Your task to perform on an android device: Open calendar and show me the second week of next month Image 0: 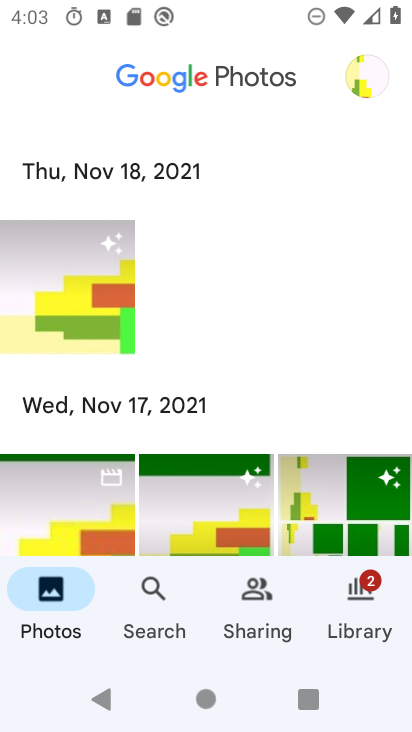
Step 0: press home button
Your task to perform on an android device: Open calendar and show me the second week of next month Image 1: 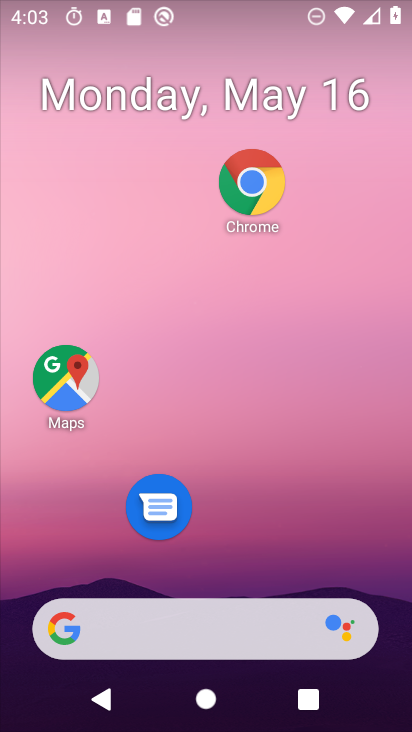
Step 1: drag from (269, 558) to (245, 60)
Your task to perform on an android device: Open calendar and show me the second week of next month Image 2: 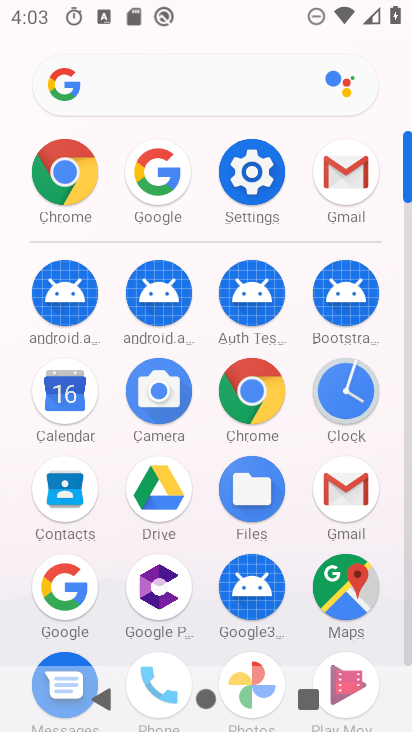
Step 2: click (83, 419)
Your task to perform on an android device: Open calendar and show me the second week of next month Image 3: 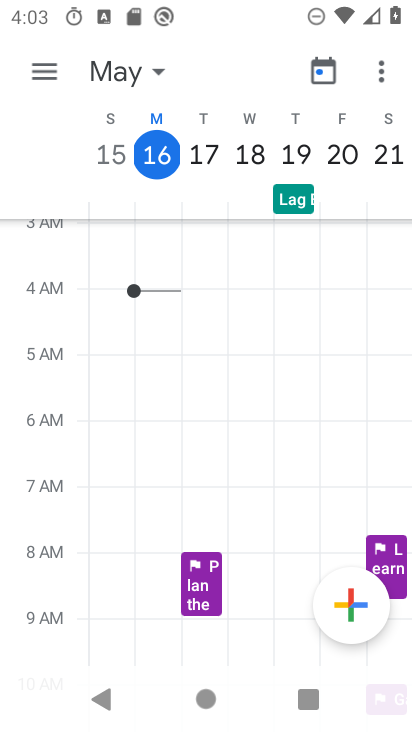
Step 3: click (156, 84)
Your task to perform on an android device: Open calendar and show me the second week of next month Image 4: 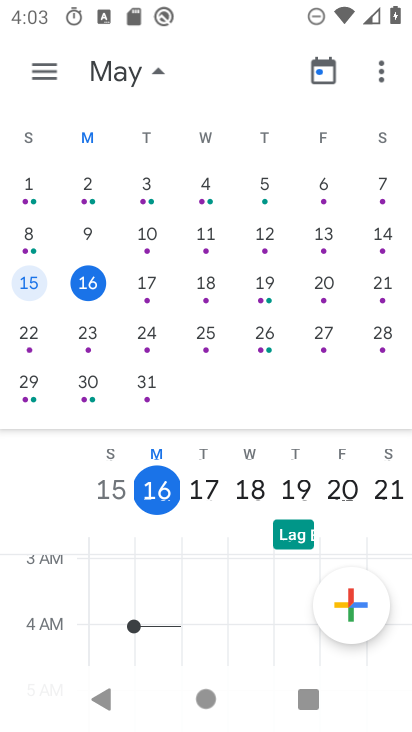
Step 4: click (147, 71)
Your task to perform on an android device: Open calendar and show me the second week of next month Image 5: 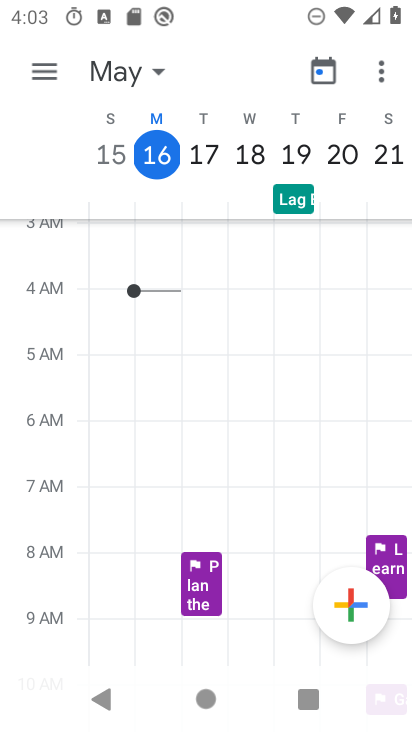
Step 5: drag from (321, 306) to (0, 296)
Your task to perform on an android device: Open calendar and show me the second week of next month Image 6: 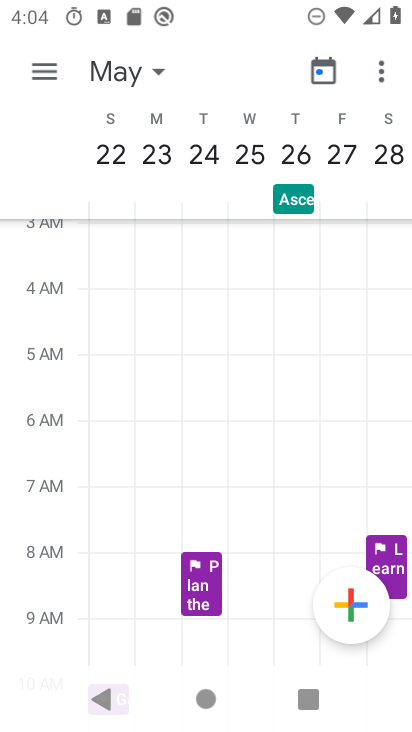
Step 6: click (154, 73)
Your task to perform on an android device: Open calendar and show me the second week of next month Image 7: 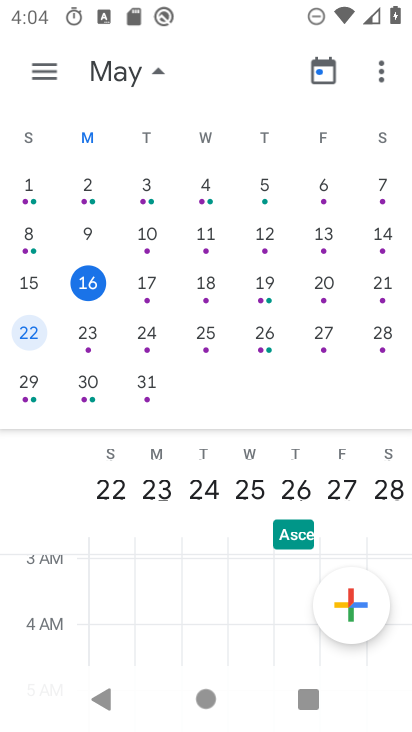
Step 7: drag from (335, 257) to (0, 254)
Your task to perform on an android device: Open calendar and show me the second week of next month Image 8: 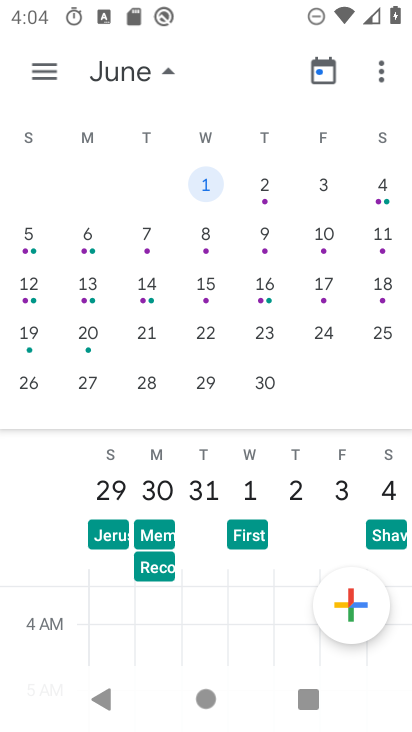
Step 8: click (28, 243)
Your task to perform on an android device: Open calendar and show me the second week of next month Image 9: 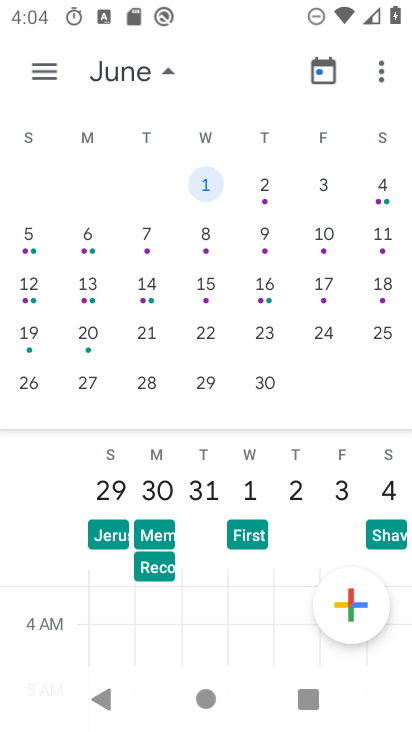
Step 9: click (32, 240)
Your task to perform on an android device: Open calendar and show me the second week of next month Image 10: 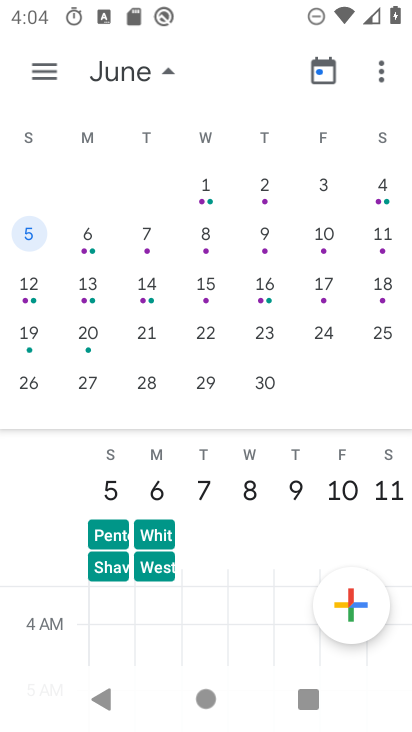
Step 10: click (136, 77)
Your task to perform on an android device: Open calendar and show me the second week of next month Image 11: 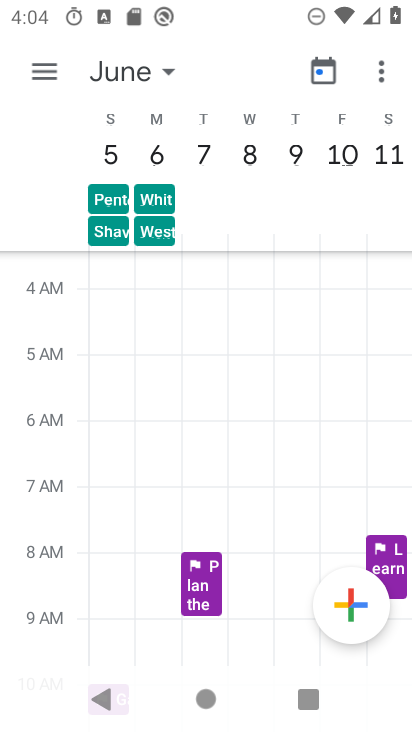
Step 11: task complete